Your task to perform on an android device: Search for a new foundation (skincare) product Image 0: 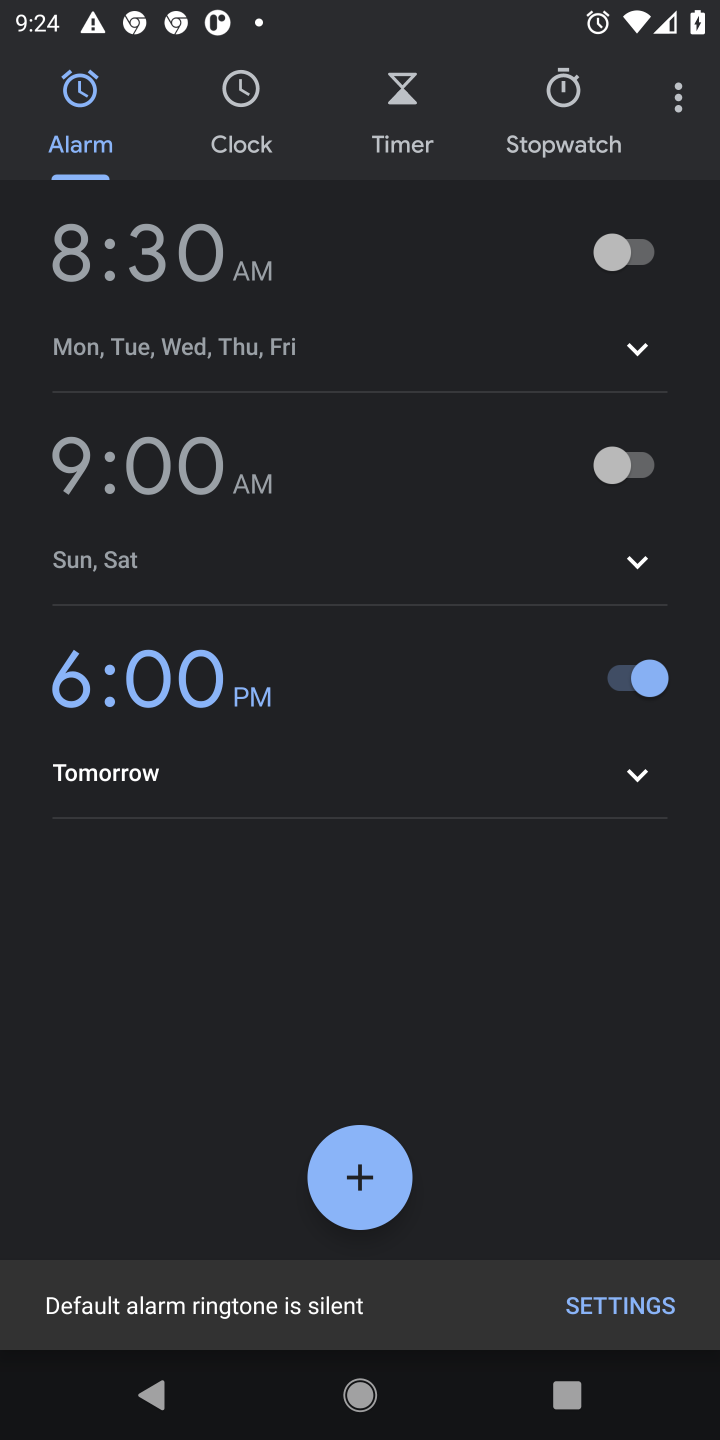
Step 0: press home button
Your task to perform on an android device: Search for a new foundation (skincare) product Image 1: 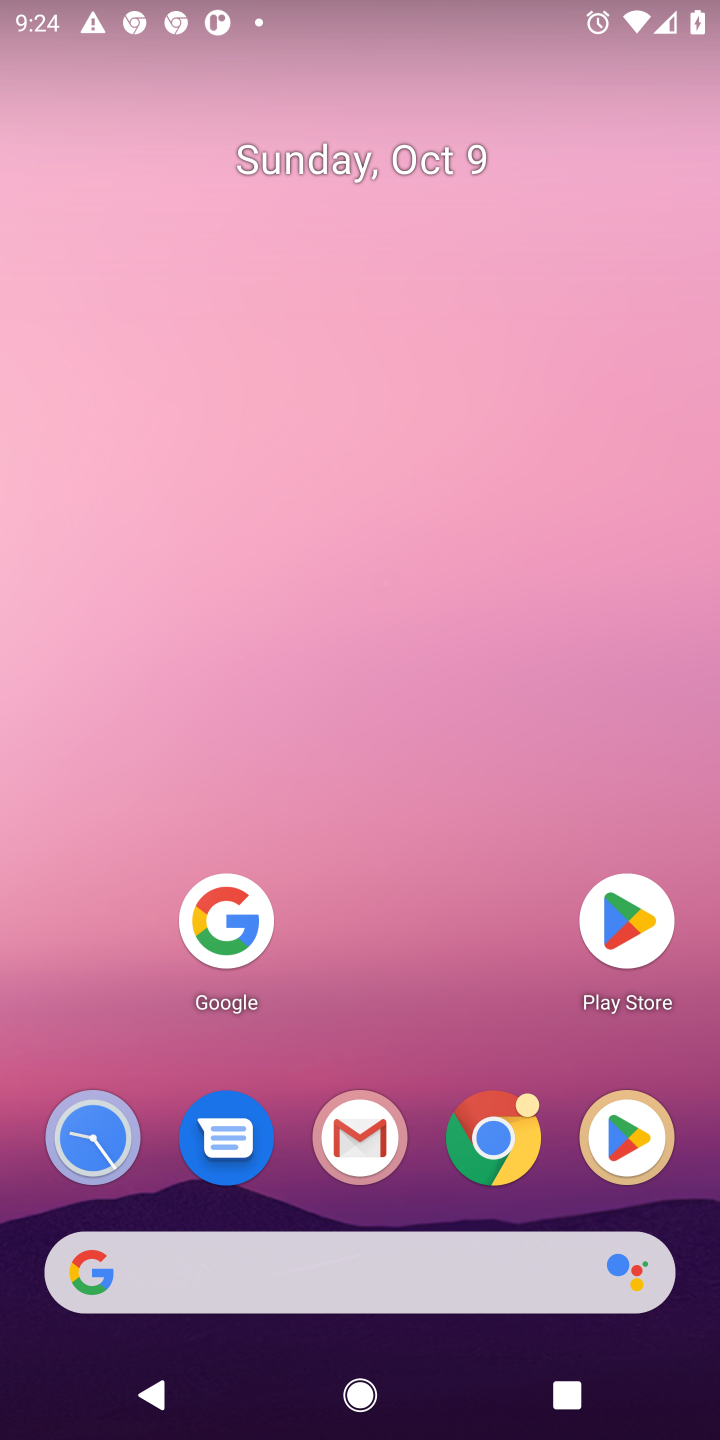
Step 1: click (240, 892)
Your task to perform on an android device: Search for a new foundation (skincare) product Image 2: 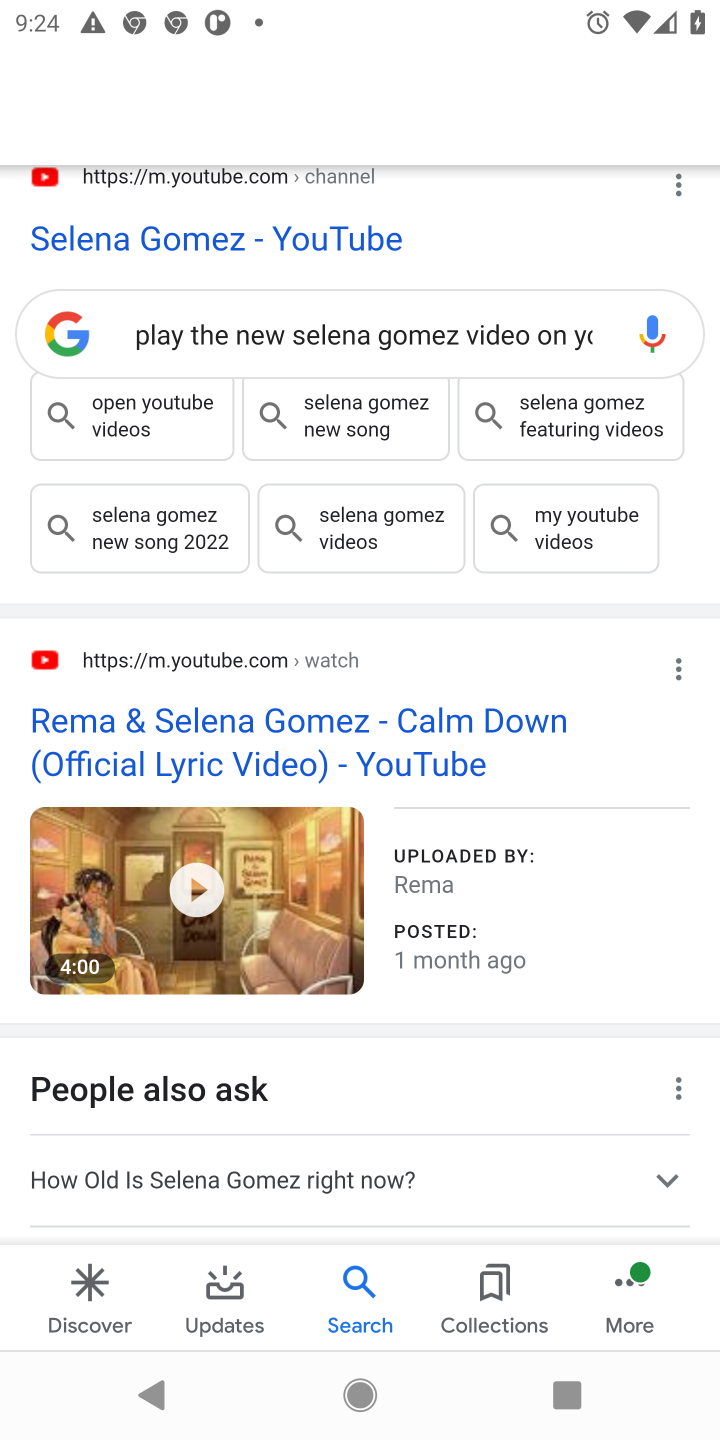
Step 2: drag from (379, 322) to (392, 1081)
Your task to perform on an android device: Search for a new foundation (skincare) product Image 3: 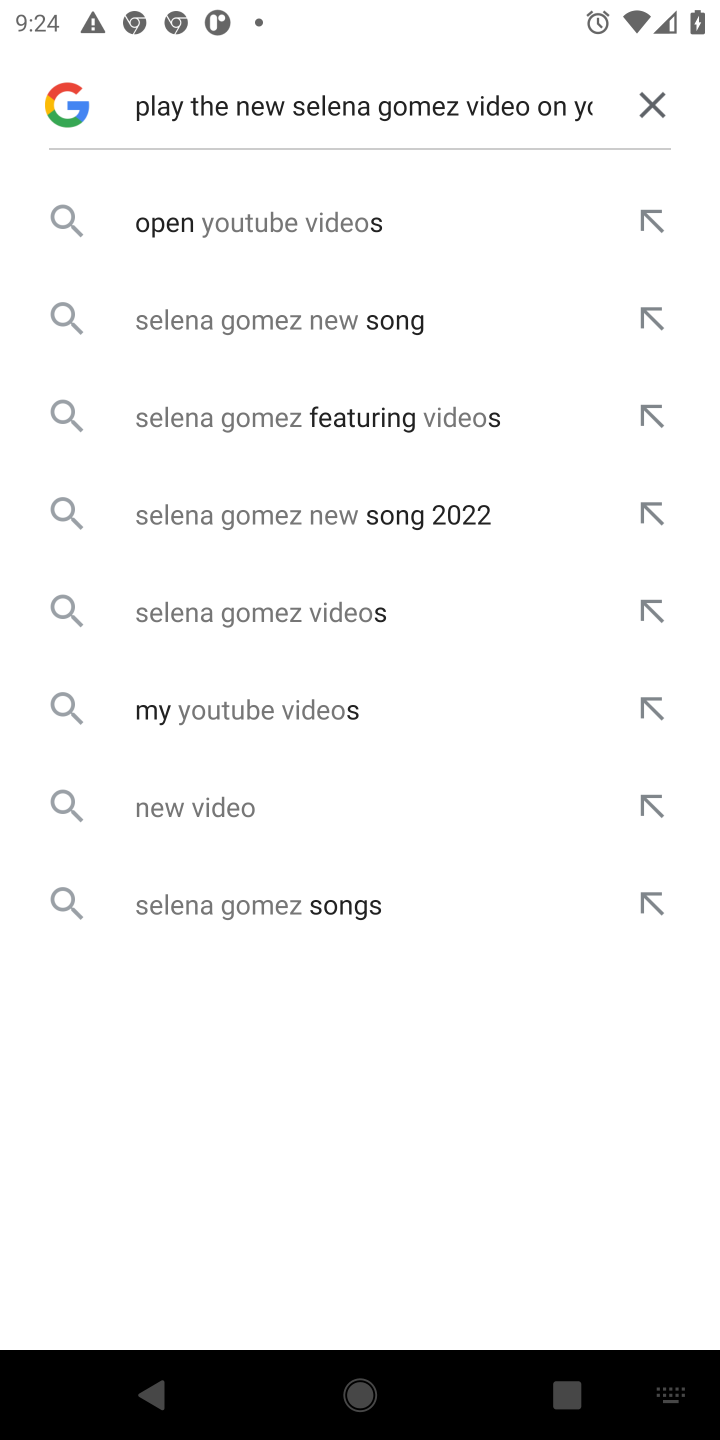
Step 3: click (662, 90)
Your task to perform on an android device: Search for a new foundation (skincare) product Image 4: 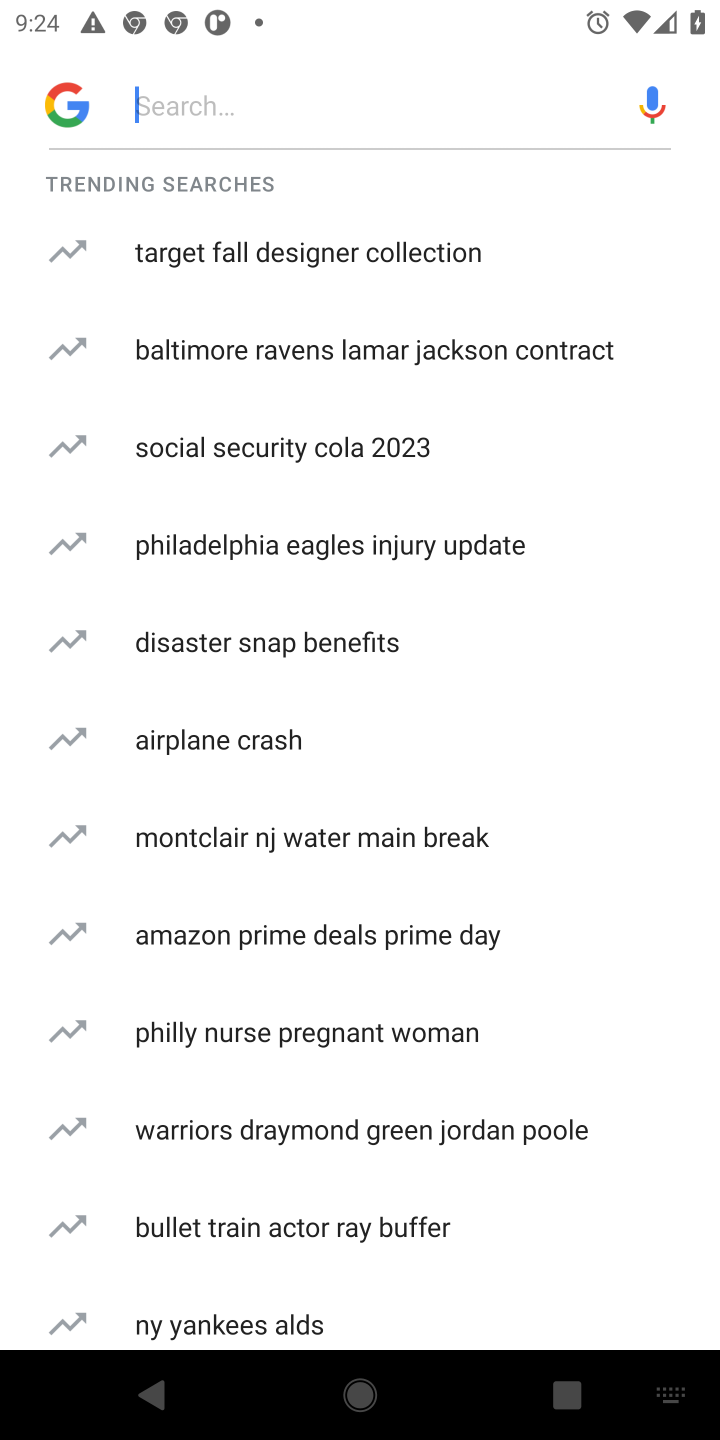
Step 4: click (328, 84)
Your task to perform on an android device: Search for a new foundation (skincare) product Image 5: 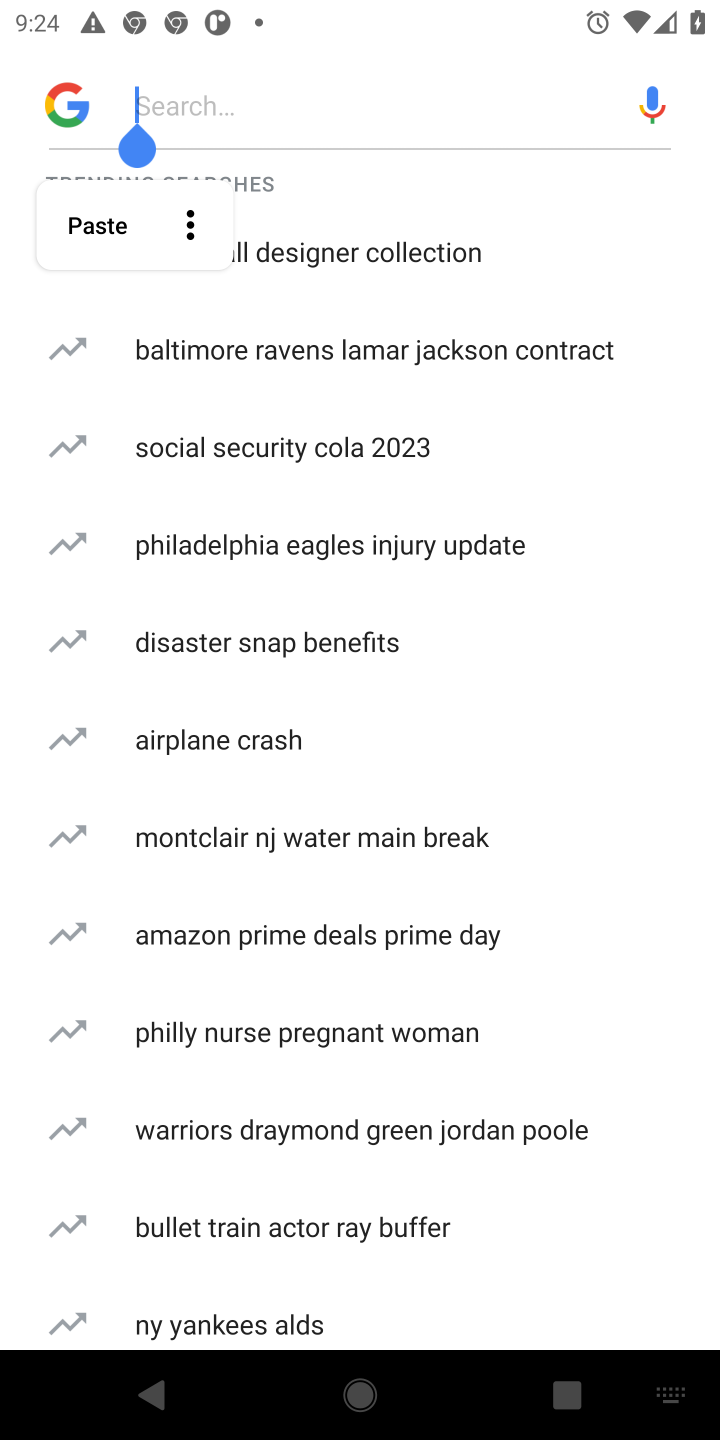
Step 5: type "Search for a new foundation (skincare) product "
Your task to perform on an android device: Search for a new foundation (skincare) product Image 6: 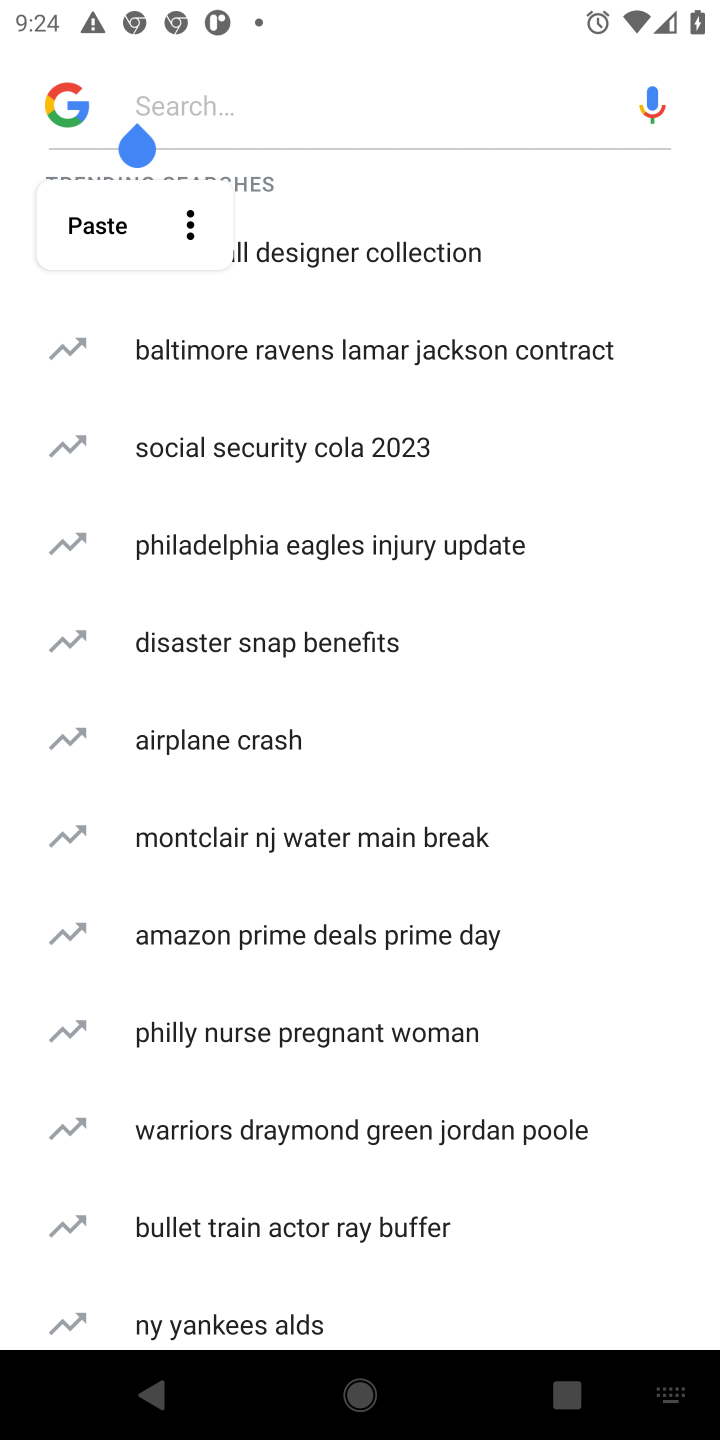
Step 6: click (146, 212)
Your task to perform on an android device: Search for a new foundation (skincare) product Image 7: 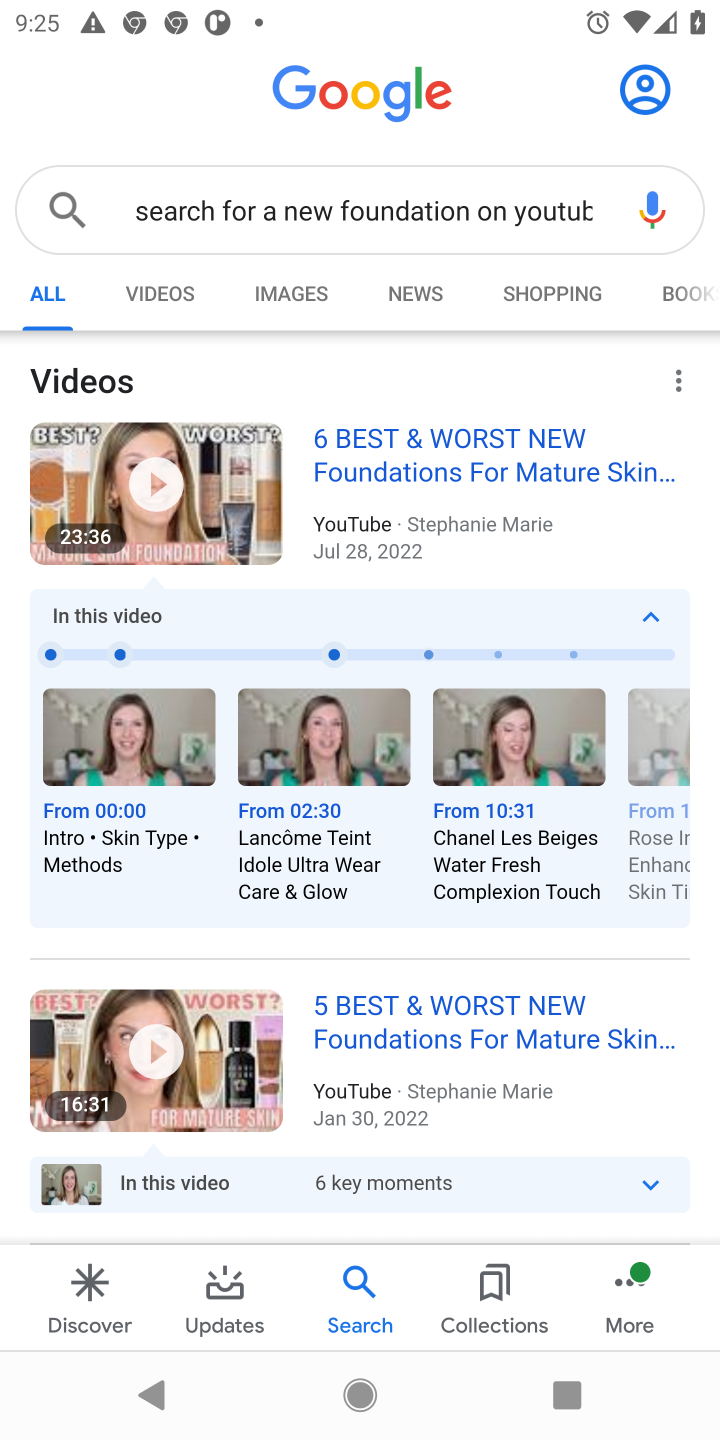
Step 7: drag from (447, 1141) to (469, 354)
Your task to perform on an android device: Search for a new foundation (skincare) product Image 8: 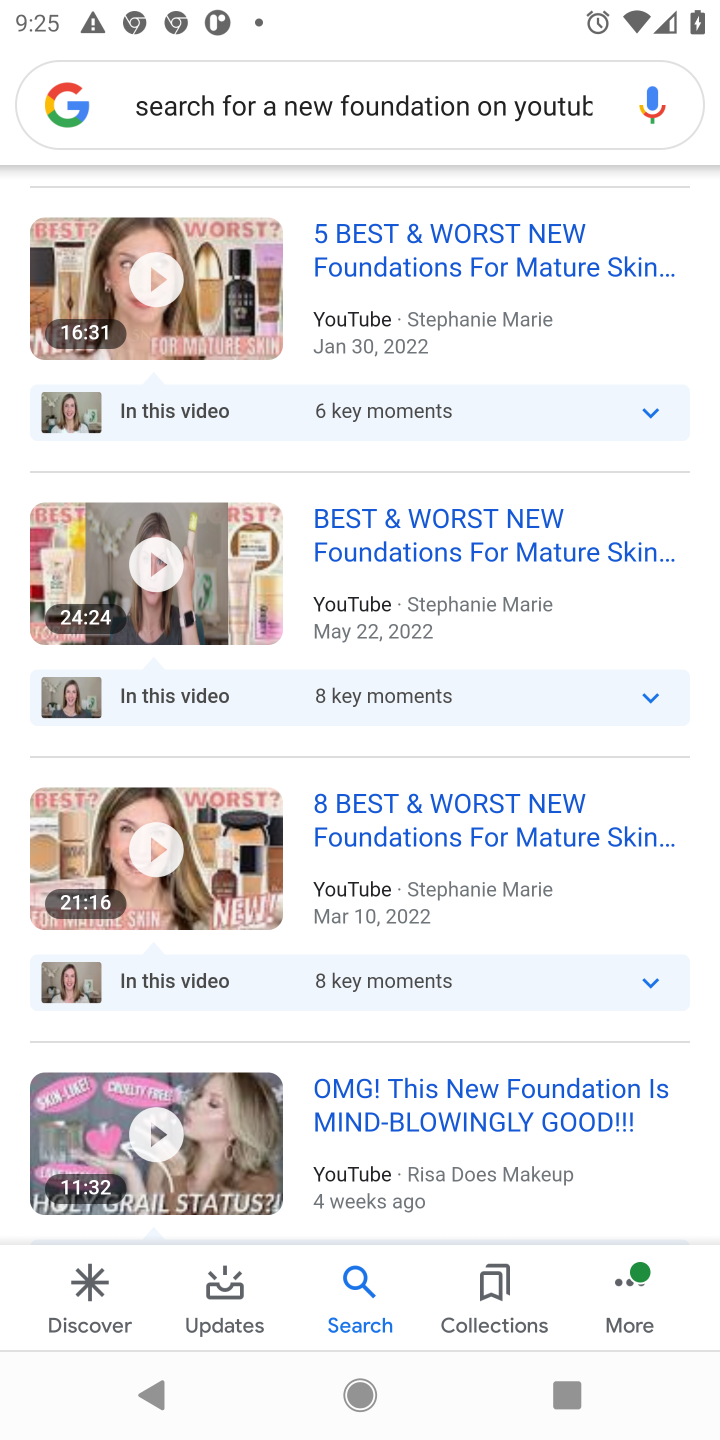
Step 8: drag from (327, 1101) to (452, 315)
Your task to perform on an android device: Search for a new foundation (skincare) product Image 9: 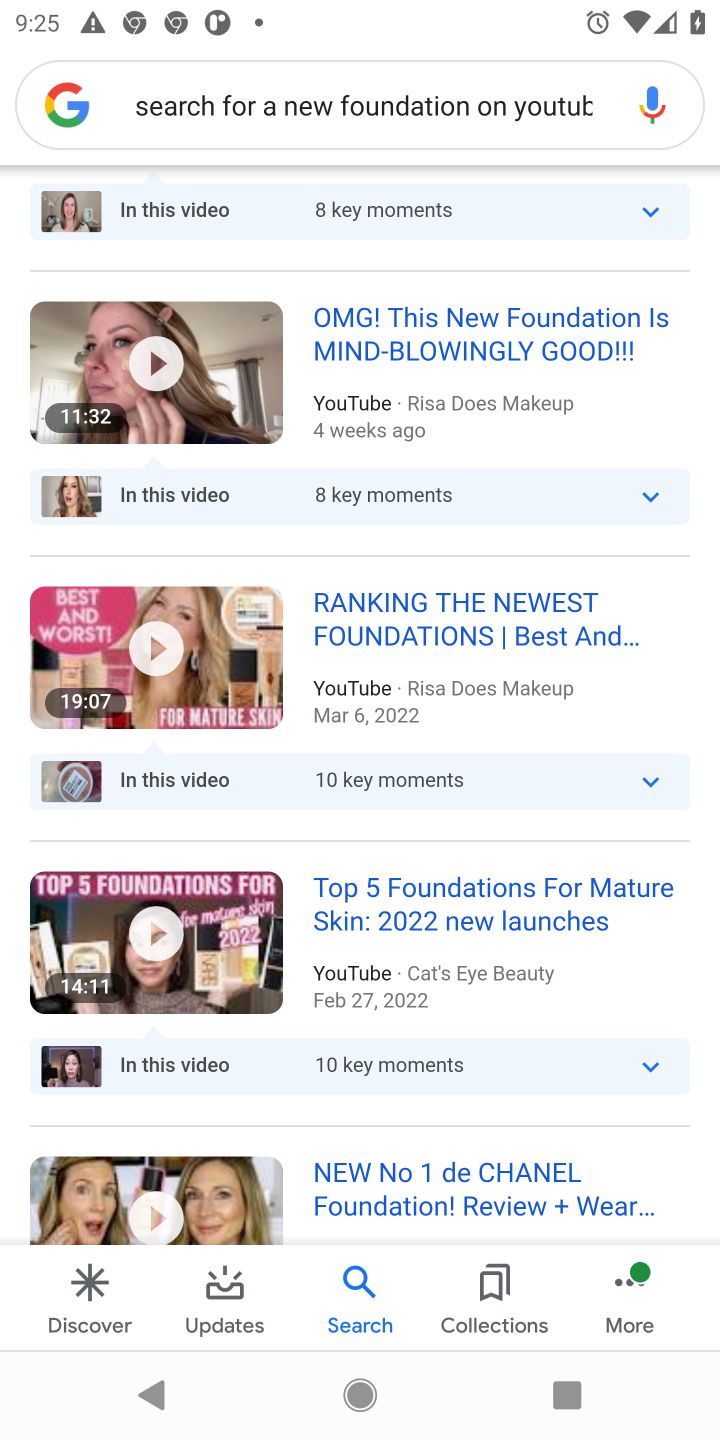
Step 9: drag from (370, 627) to (416, 254)
Your task to perform on an android device: Search for a new foundation (skincare) product Image 10: 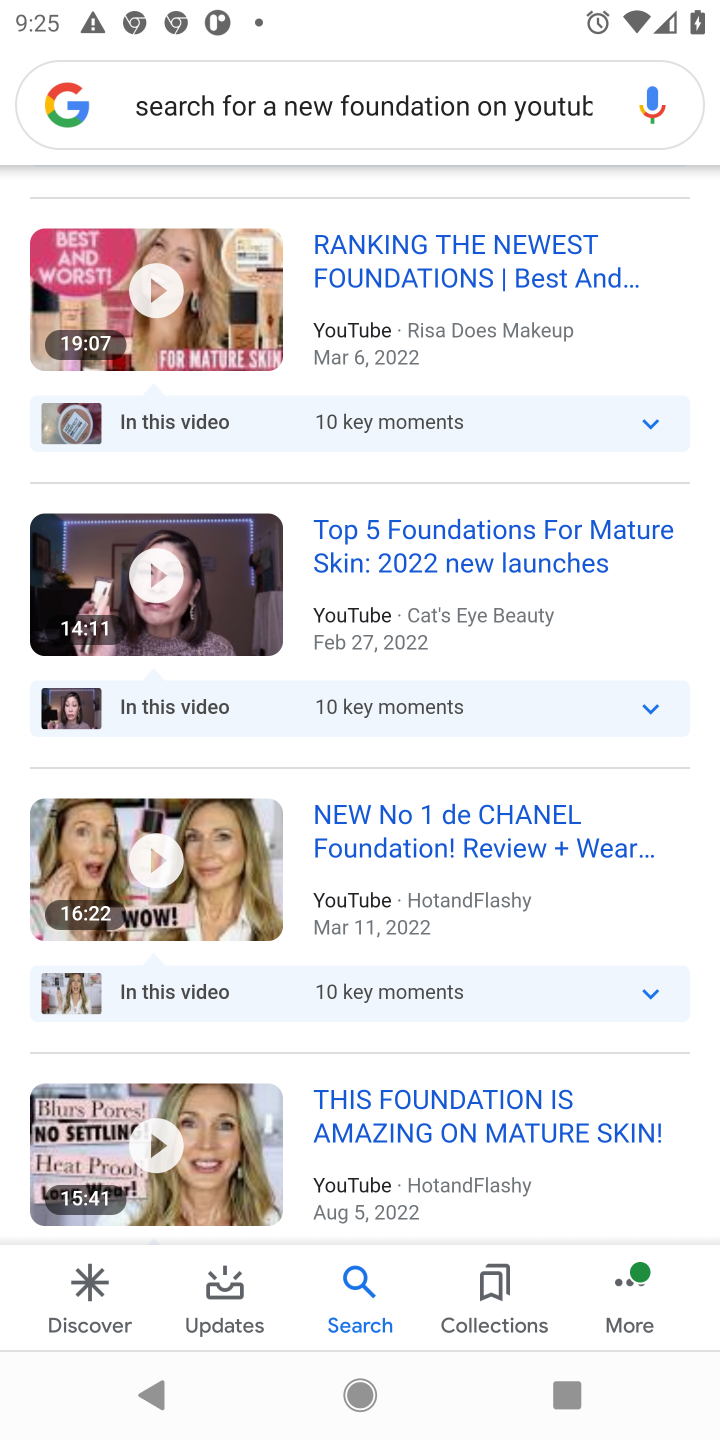
Step 10: drag from (414, 416) to (429, 1209)
Your task to perform on an android device: Search for a new foundation (skincare) product Image 11: 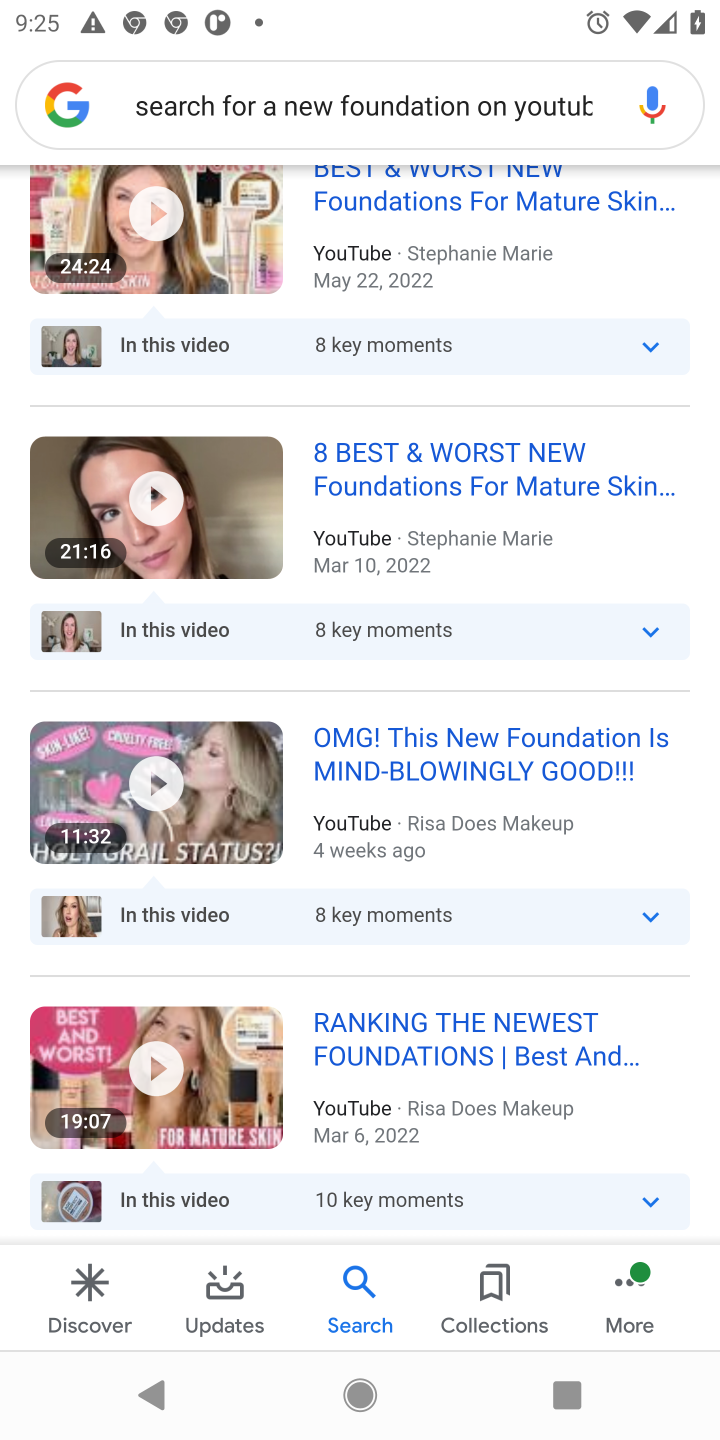
Step 11: drag from (350, 739) to (398, 1155)
Your task to perform on an android device: Search for a new foundation (skincare) product Image 12: 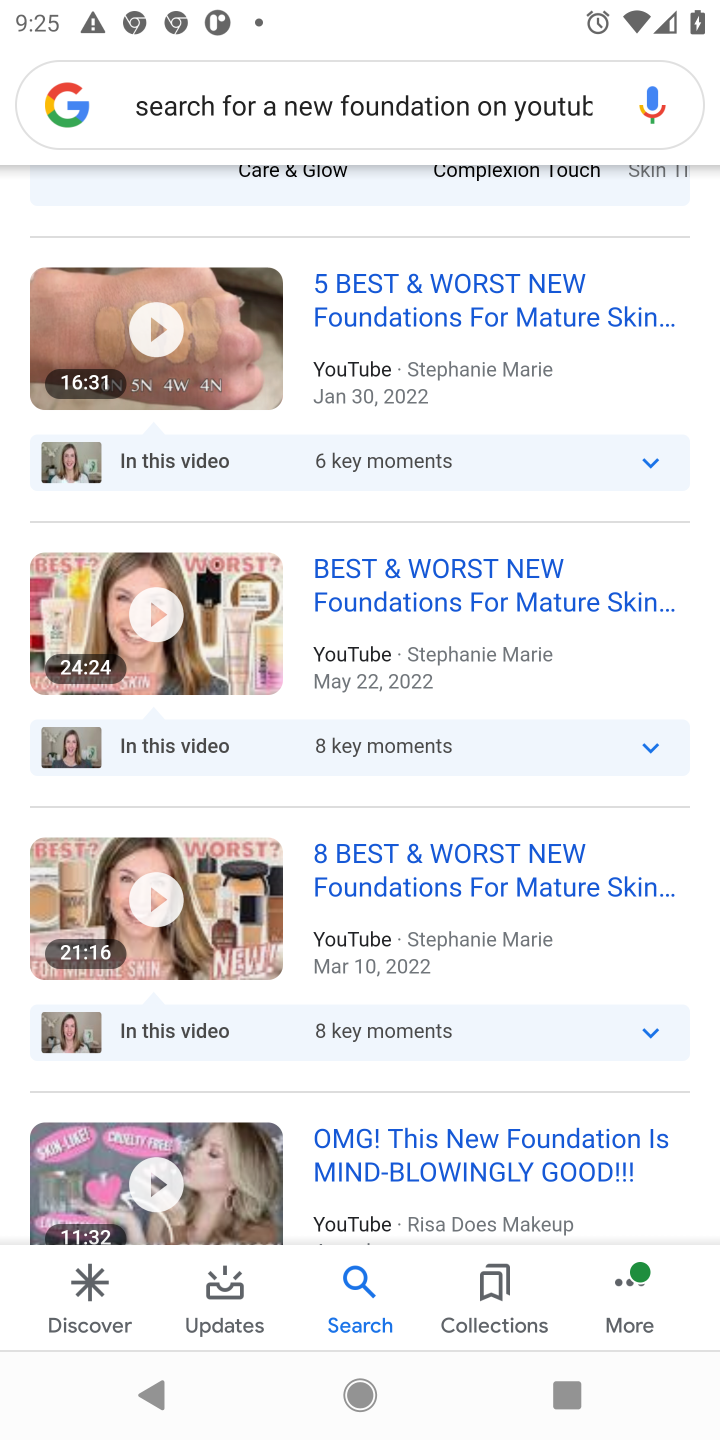
Step 12: drag from (368, 918) to (400, 1199)
Your task to perform on an android device: Search for a new foundation (skincare) product Image 13: 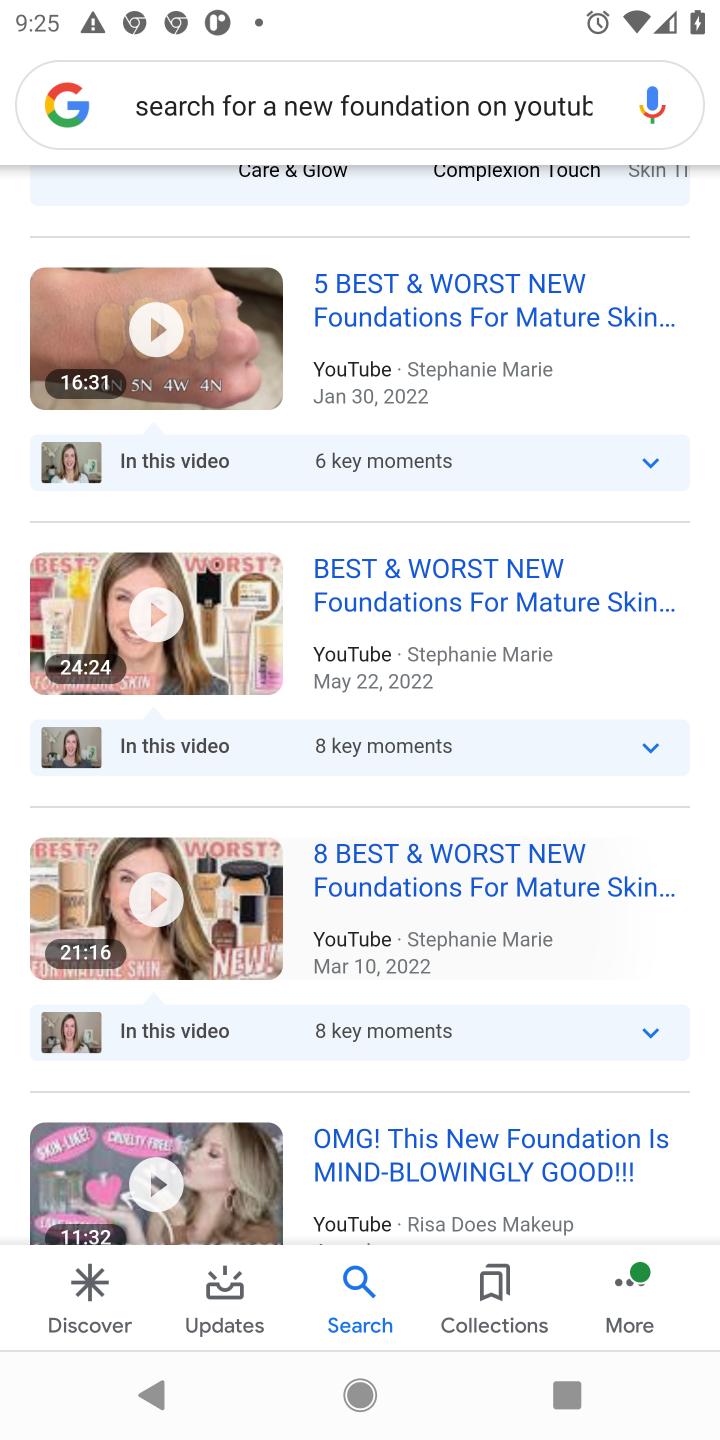
Step 13: drag from (378, 938) to (306, 1212)
Your task to perform on an android device: Search for a new foundation (skincare) product Image 14: 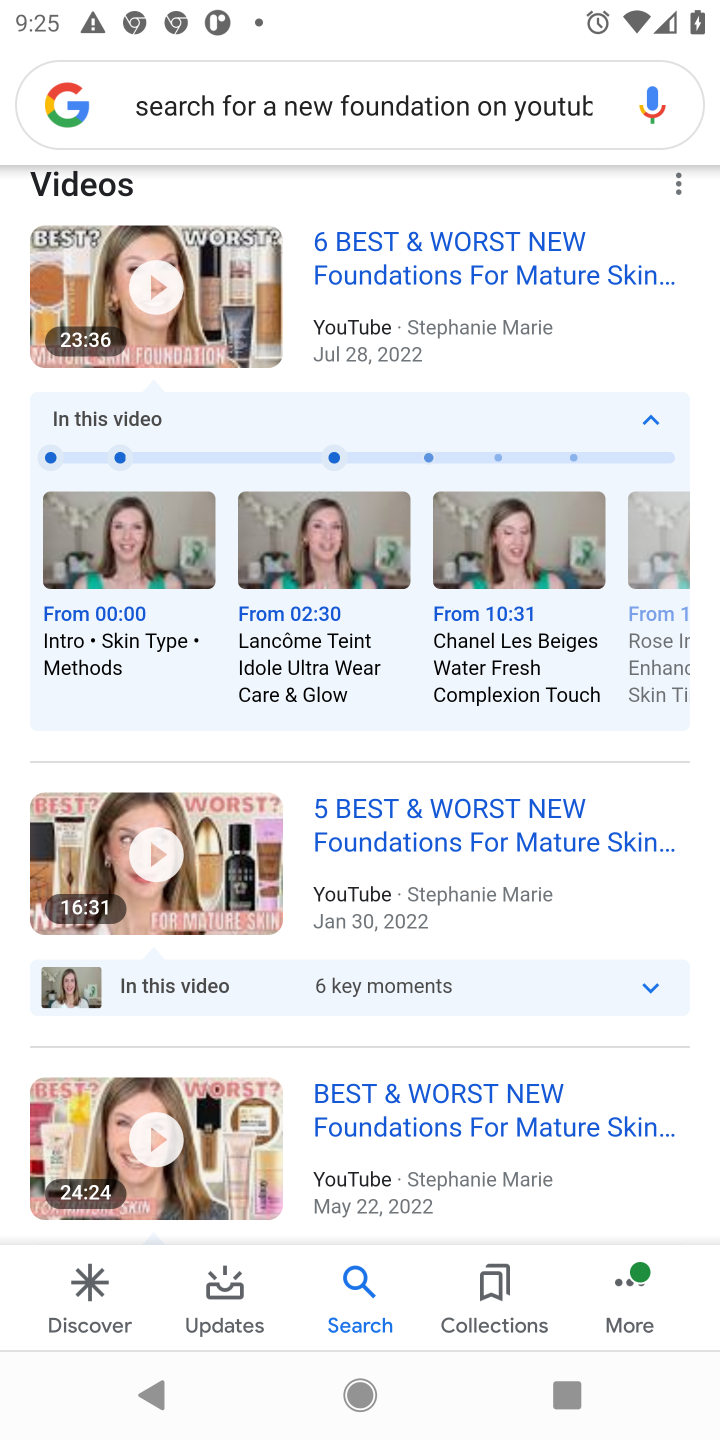
Step 14: drag from (295, 1113) to (299, 1226)
Your task to perform on an android device: Search for a new foundation (skincare) product Image 15: 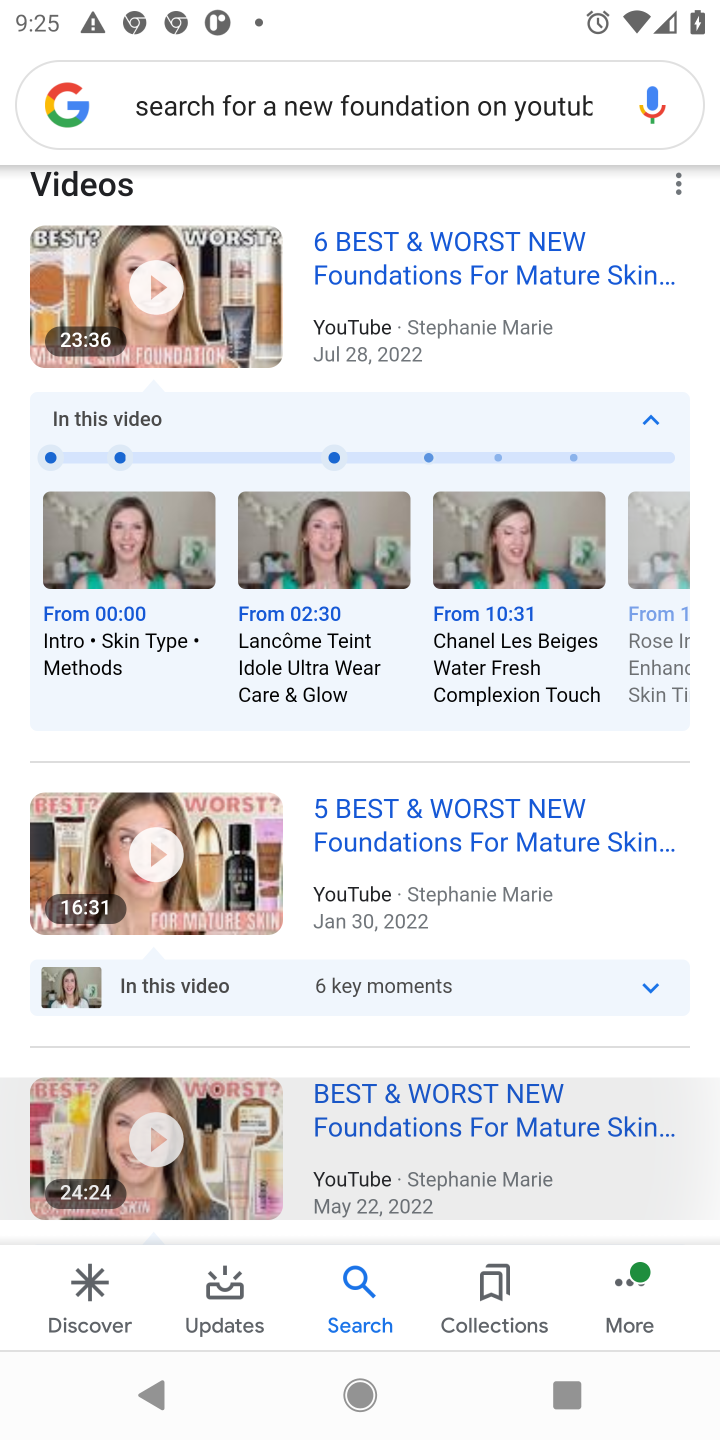
Step 15: click (354, 1132)
Your task to perform on an android device: Search for a new foundation (skincare) product Image 16: 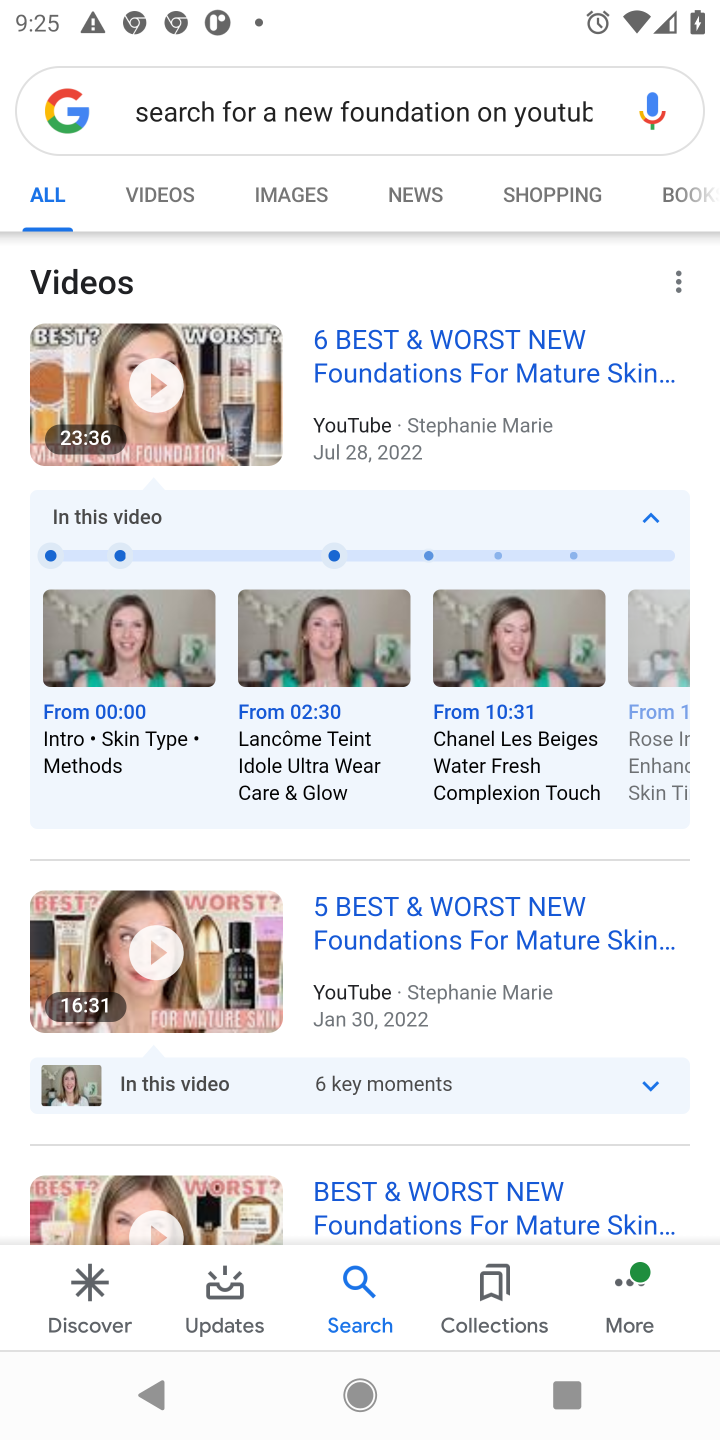
Step 16: click (72, 202)
Your task to perform on an android device: Search for a new foundation (skincare) product Image 17: 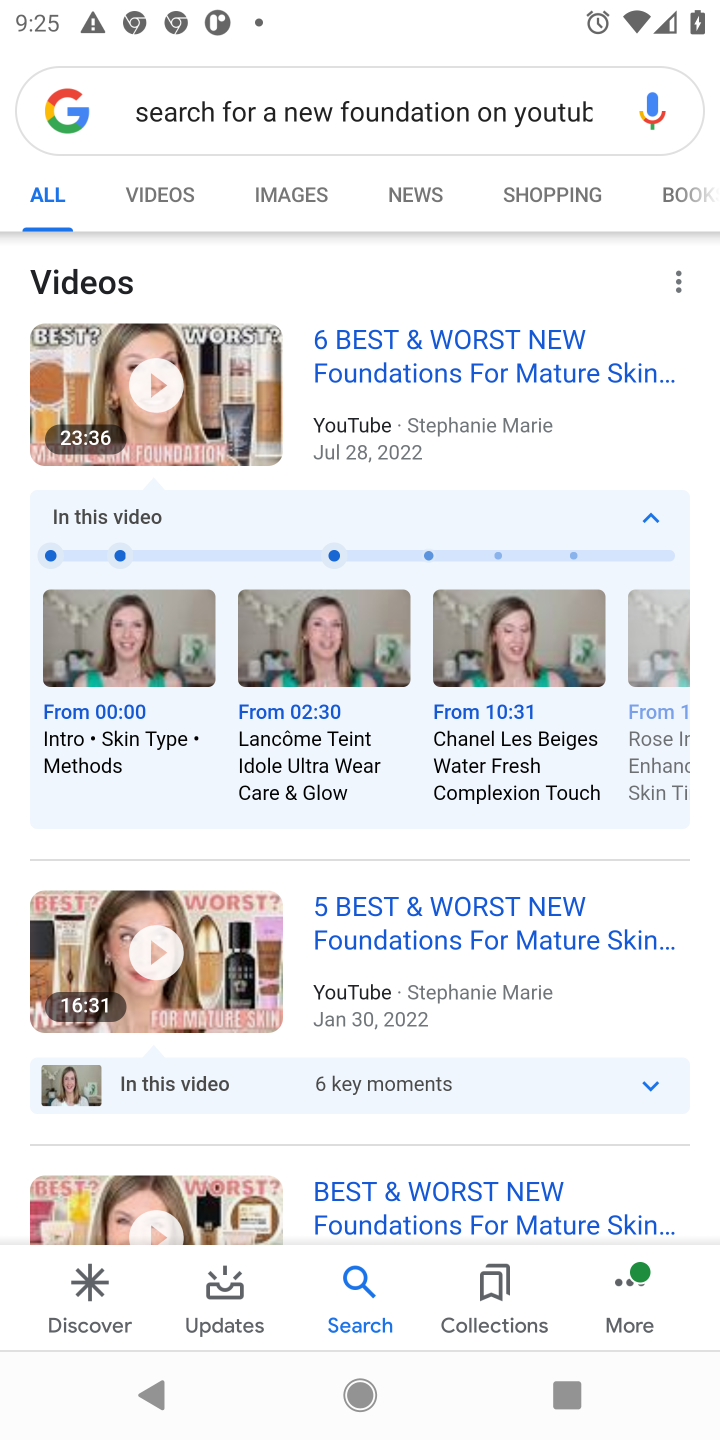
Step 17: click (384, 91)
Your task to perform on an android device: Search for a new foundation (skincare) product Image 18: 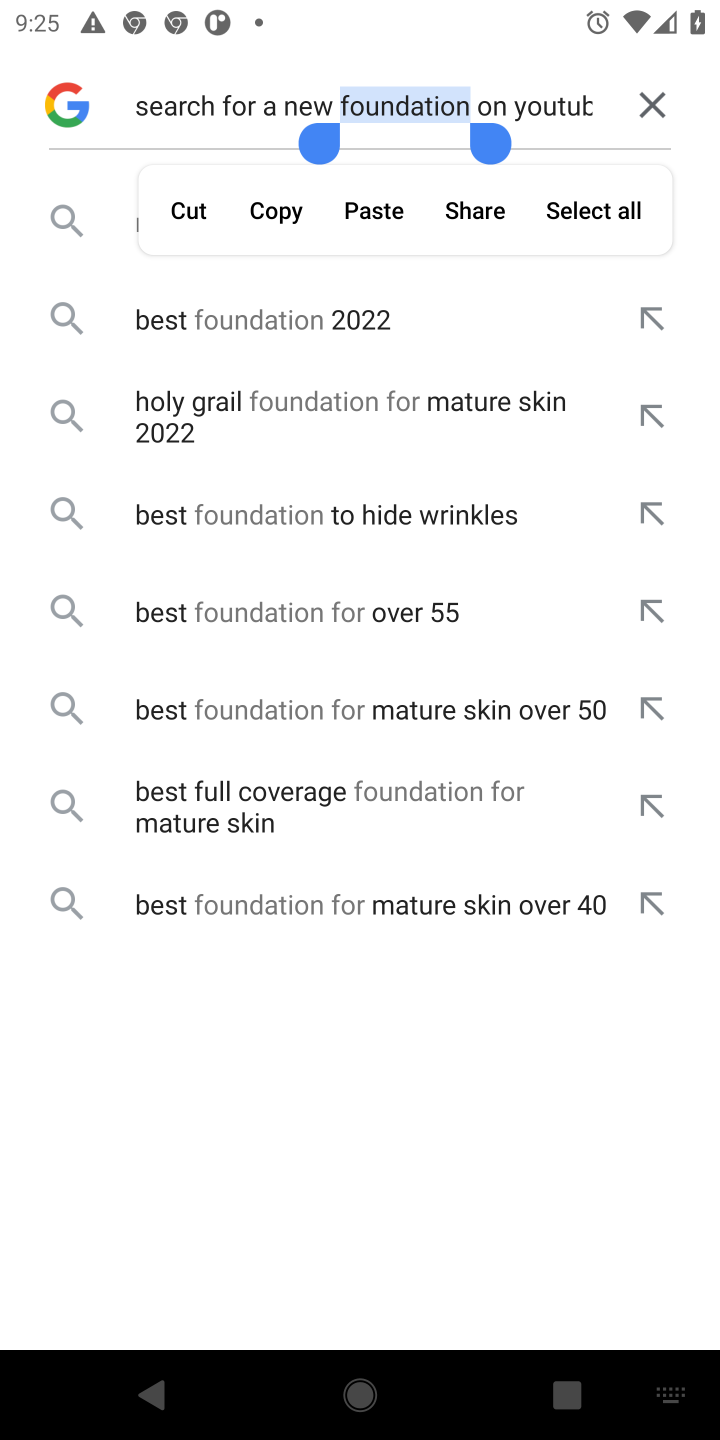
Step 18: click (237, 309)
Your task to perform on an android device: Search for a new foundation (skincare) product Image 19: 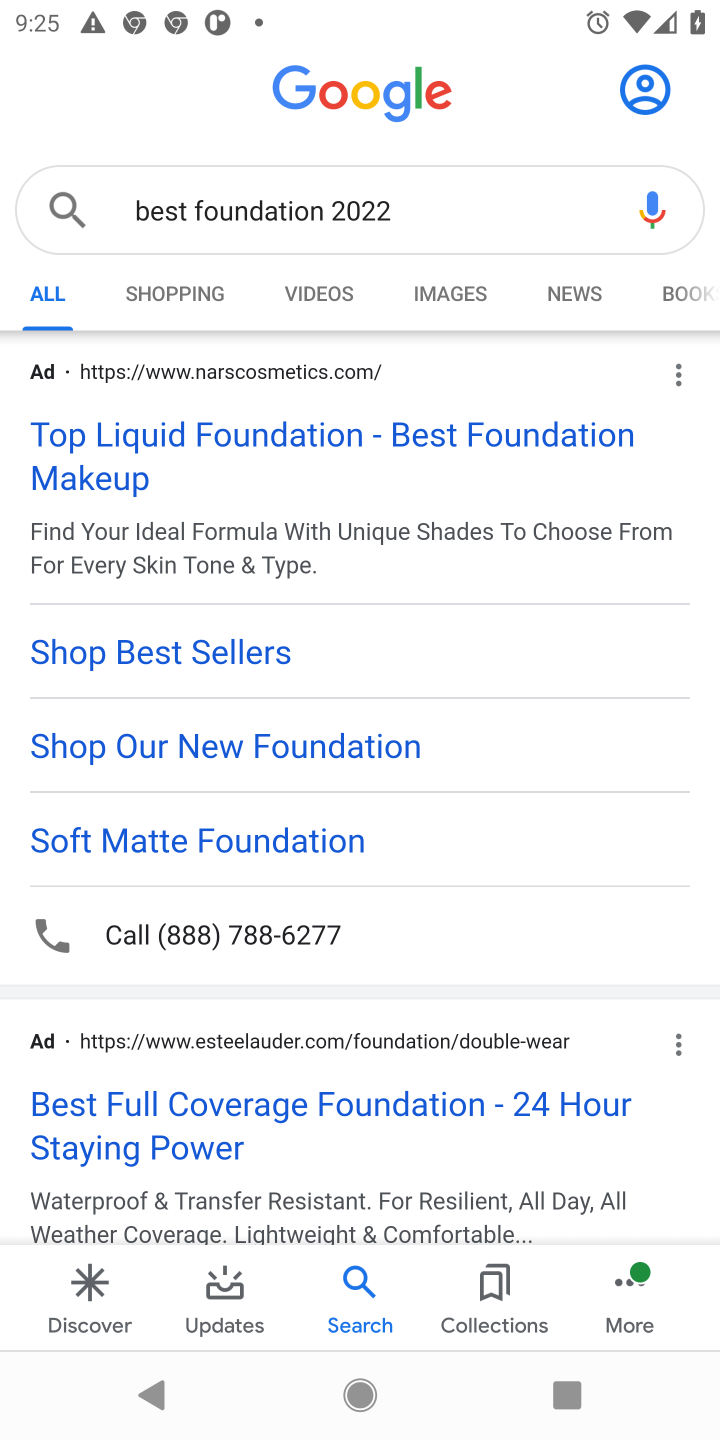
Step 19: click (188, 1121)
Your task to perform on an android device: Search for a new foundation (skincare) product Image 20: 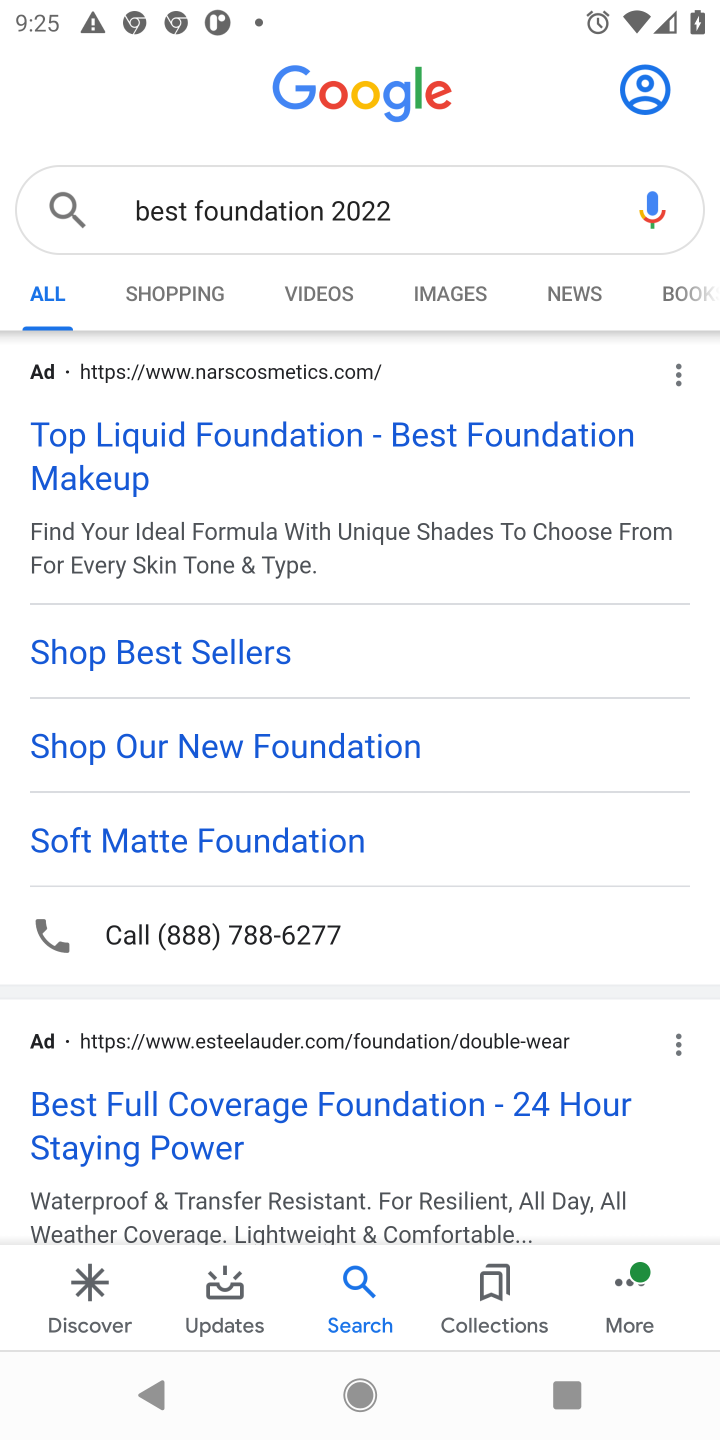
Step 20: click (207, 1096)
Your task to perform on an android device: Search for a new foundation (skincare) product Image 21: 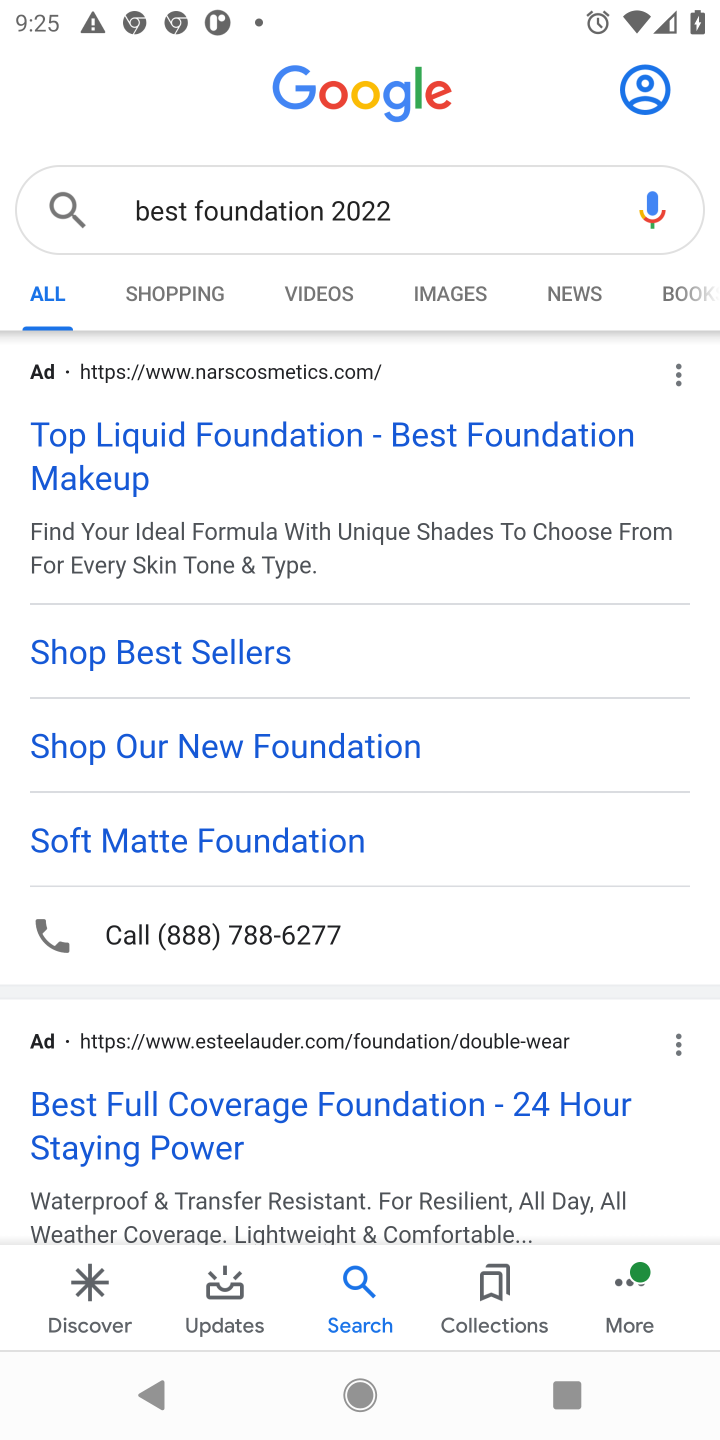
Step 21: click (215, 1123)
Your task to perform on an android device: Search for a new foundation (skincare) product Image 22: 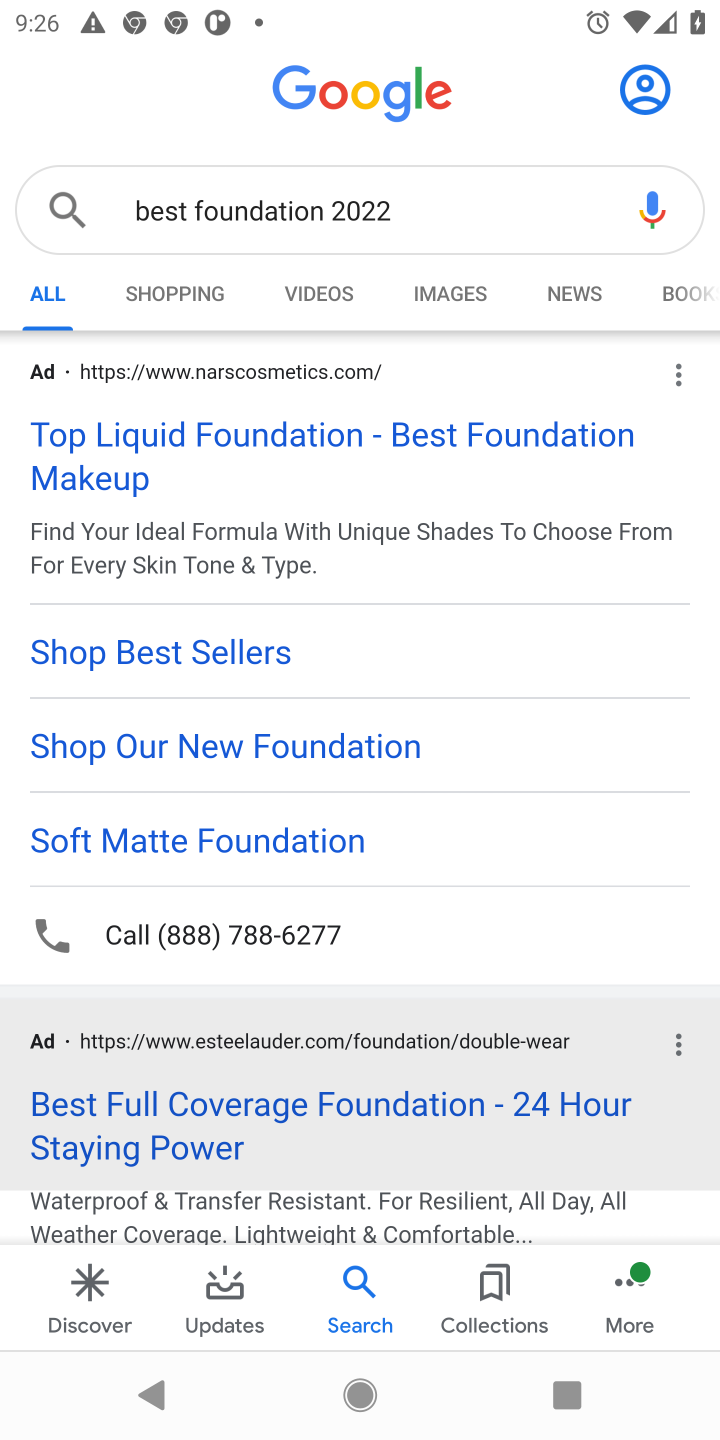
Step 22: click (243, 1104)
Your task to perform on an android device: Search for a new foundation (skincare) product Image 23: 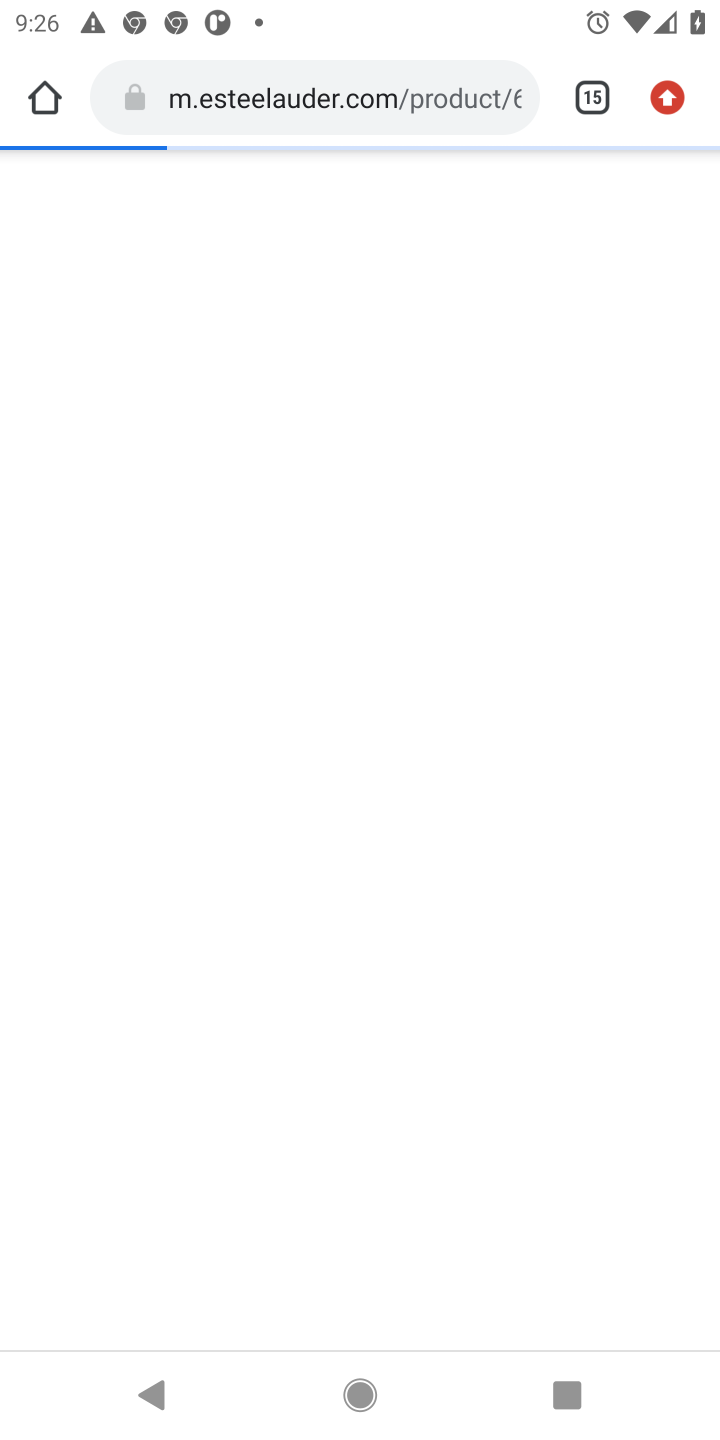
Step 23: task complete